Your task to perform on an android device: How much does a 3 bedroom apartment rent for in Austin? Image 0: 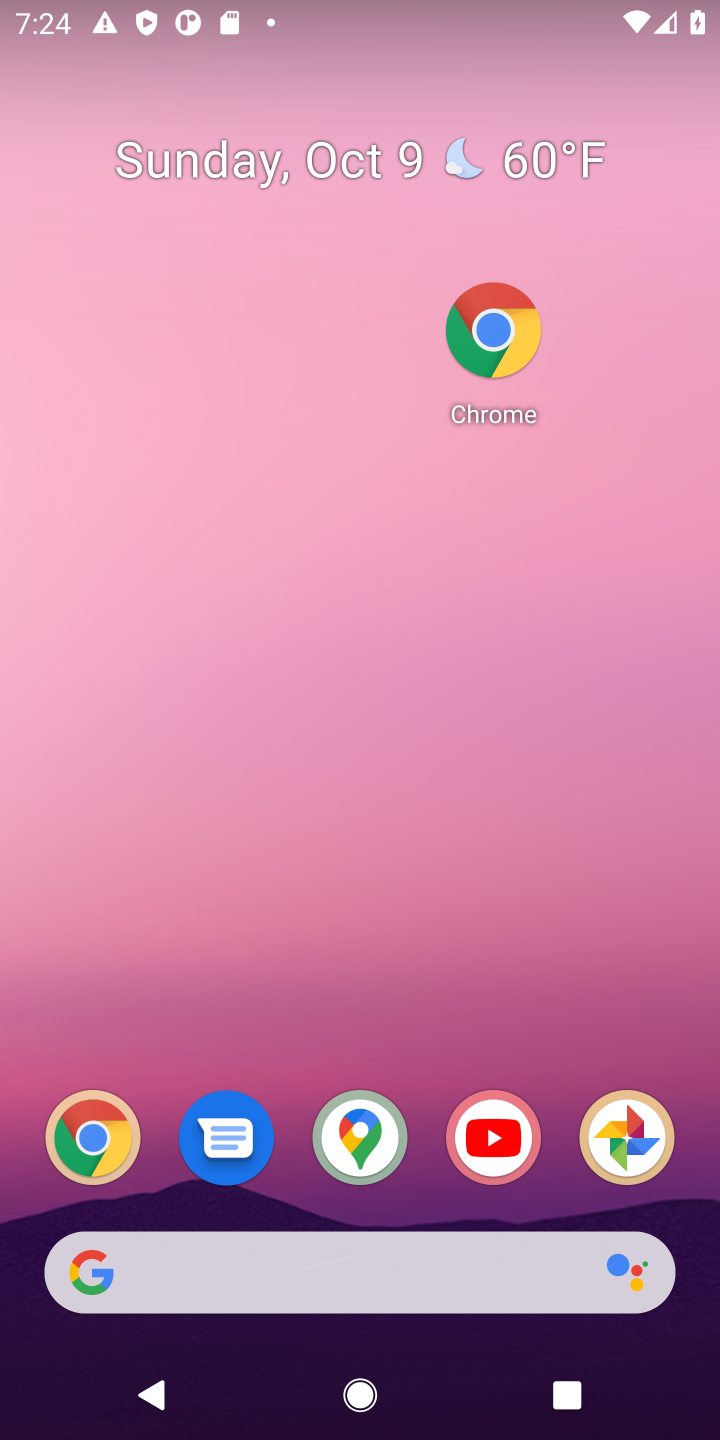
Step 0: click (504, 335)
Your task to perform on an android device: How much does a 3 bedroom apartment rent for in Austin? Image 1: 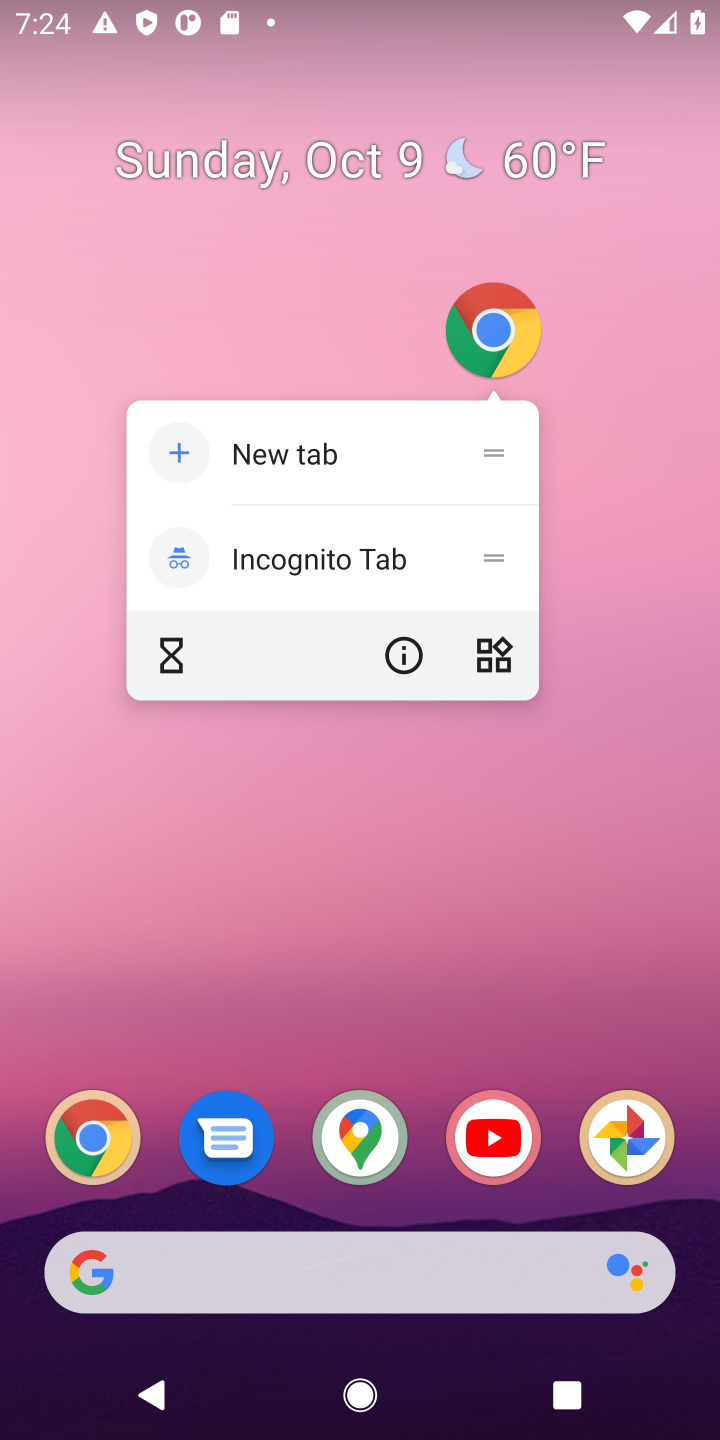
Step 1: click (482, 343)
Your task to perform on an android device: How much does a 3 bedroom apartment rent for in Austin? Image 2: 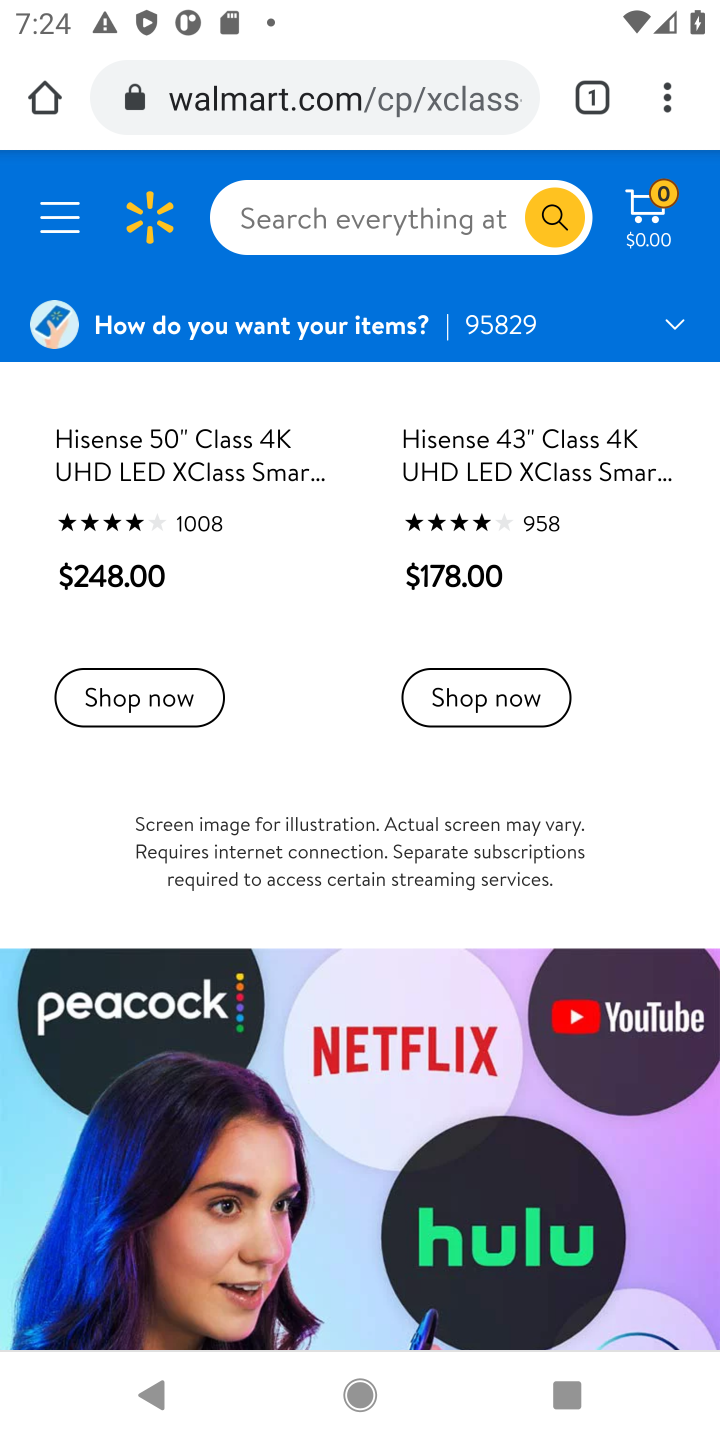
Step 2: click (411, 81)
Your task to perform on an android device: How much does a 3 bedroom apartment rent for in Austin? Image 3: 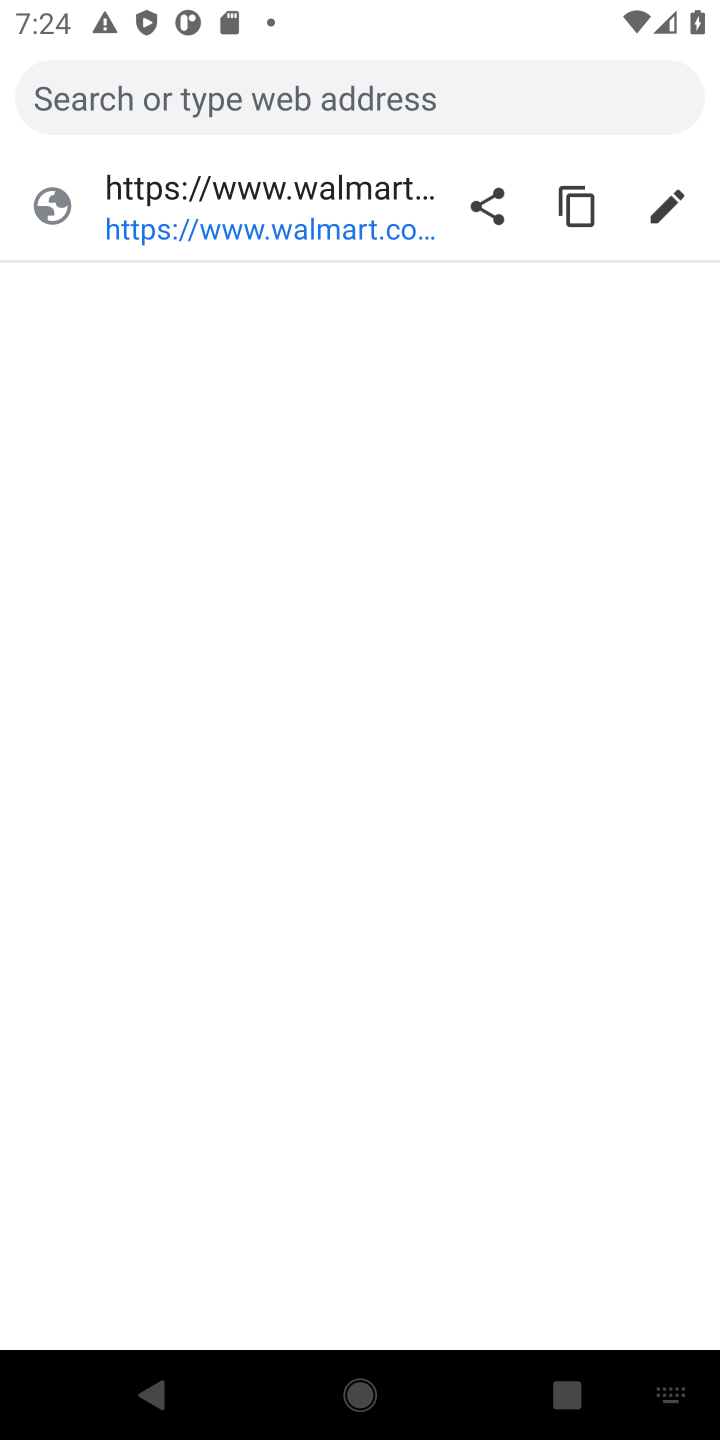
Step 3: type "3 bedroom apartment rent for in Austin"
Your task to perform on an android device: How much does a 3 bedroom apartment rent for in Austin? Image 4: 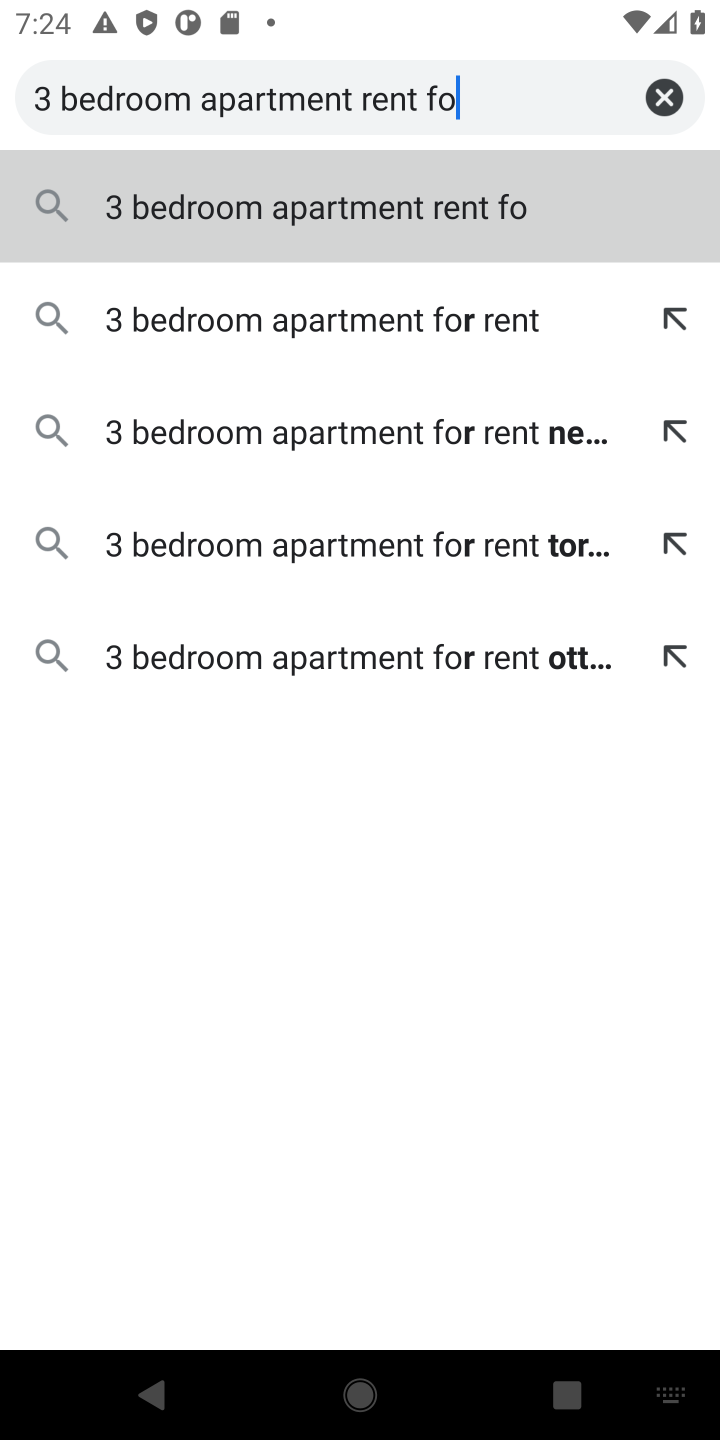
Step 4: type "r in austin"
Your task to perform on an android device: How much does a 3 bedroom apartment rent for in Austin? Image 5: 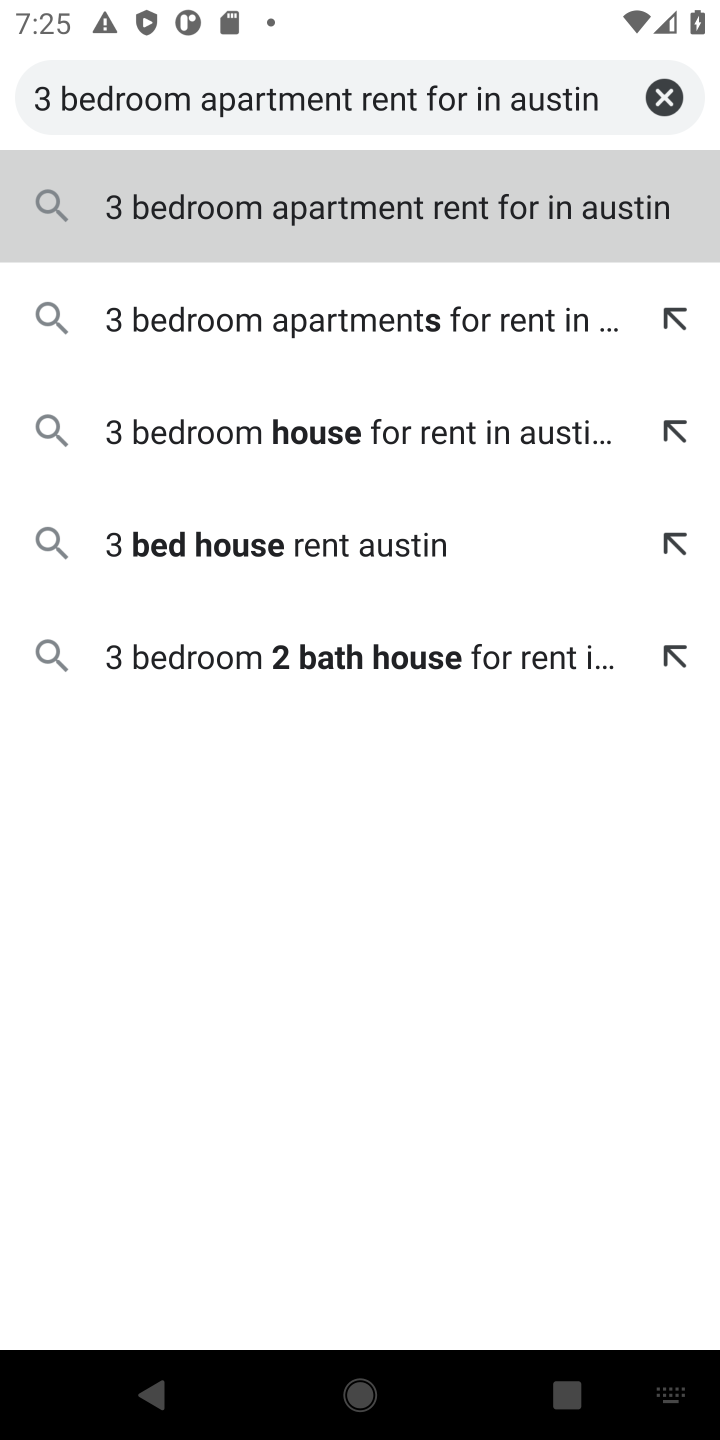
Step 5: type ""
Your task to perform on an android device: How much does a 3 bedroom apartment rent for in Austin? Image 6: 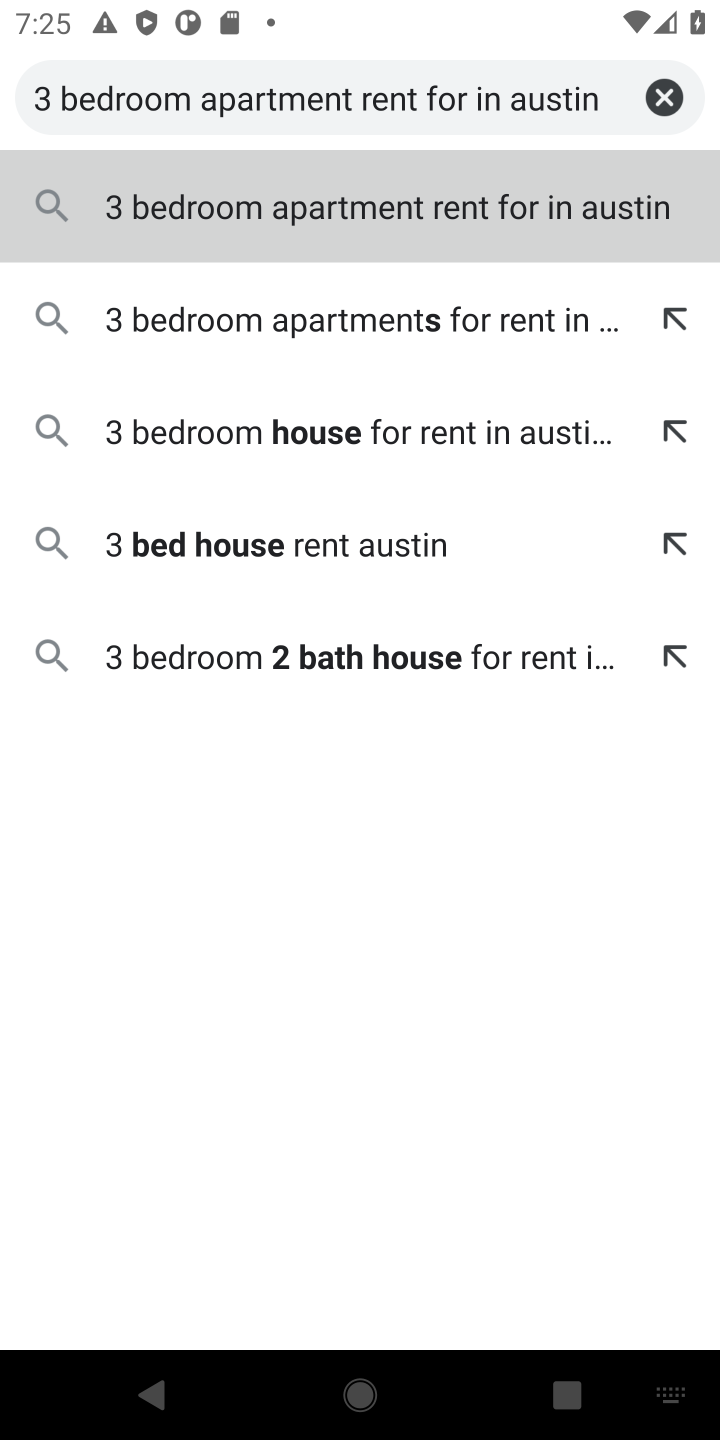
Step 6: press enter
Your task to perform on an android device: How much does a 3 bedroom apartment rent for in Austin? Image 7: 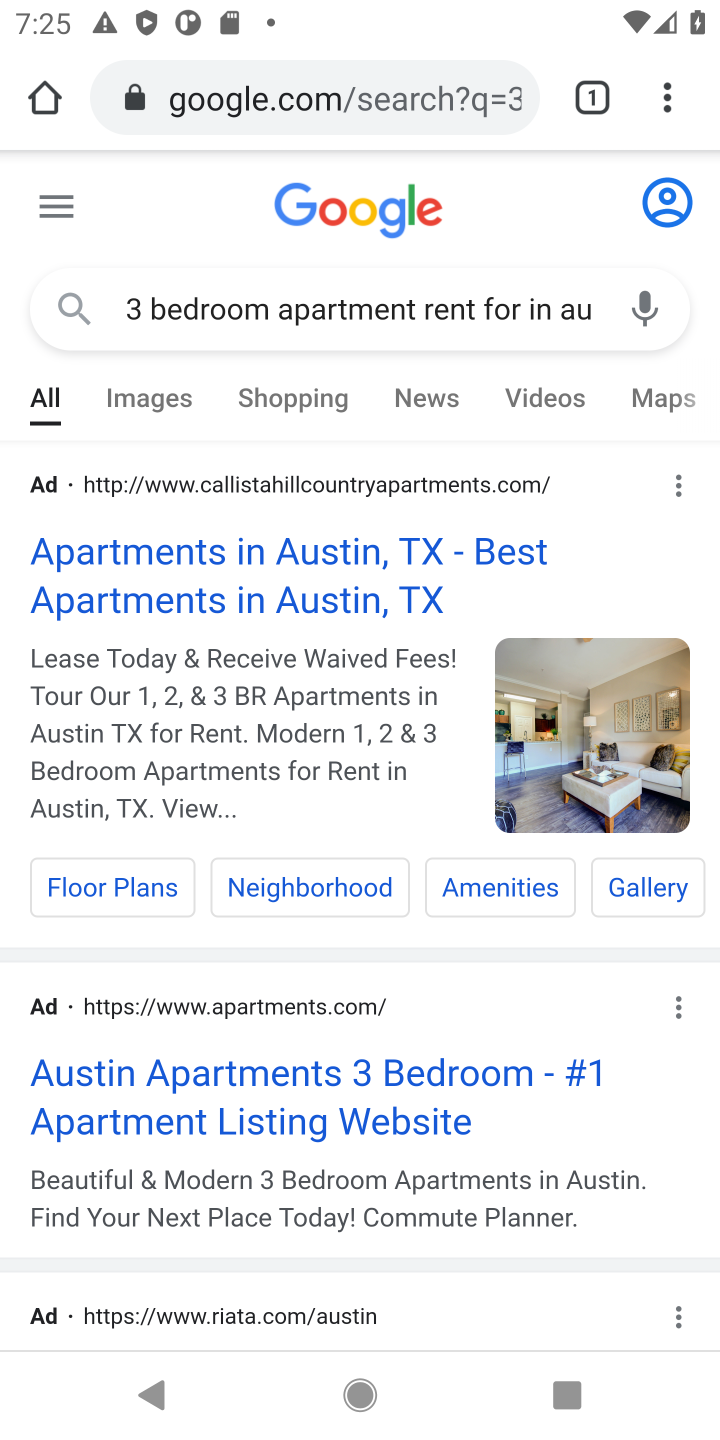
Step 7: click (360, 1082)
Your task to perform on an android device: How much does a 3 bedroom apartment rent for in Austin? Image 8: 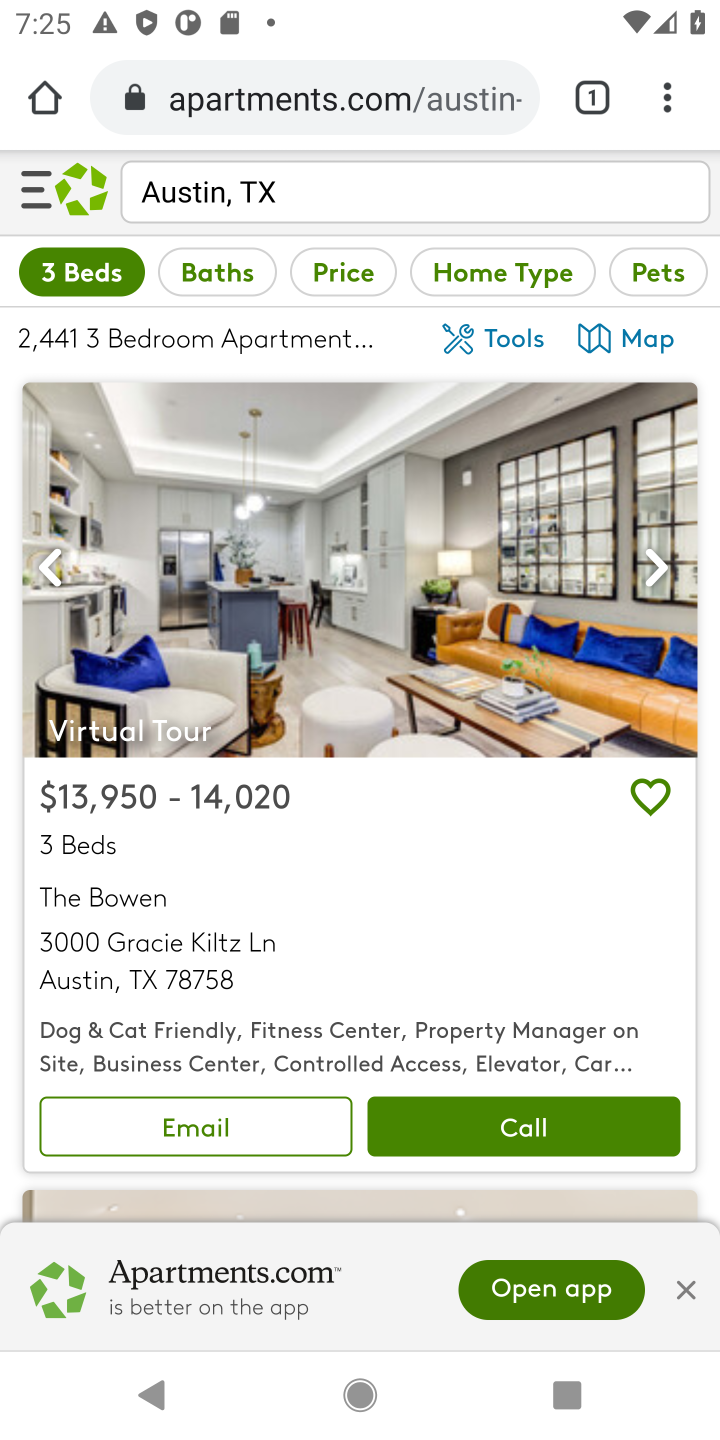
Step 8: task complete